Your task to perform on an android device: Set the phone to "Do not disturb". Image 0: 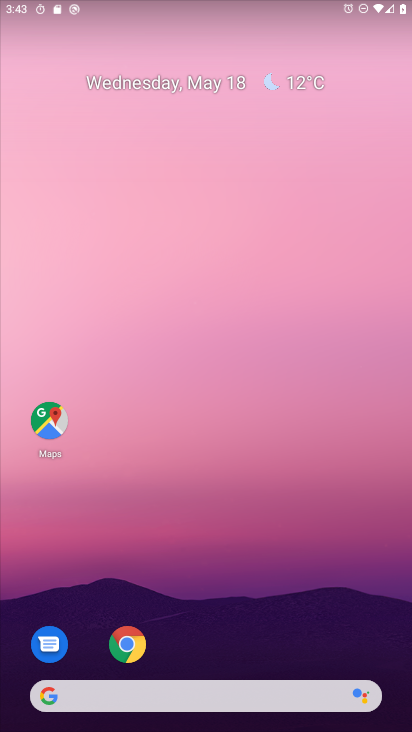
Step 0: drag from (385, 676) to (332, 266)
Your task to perform on an android device: Set the phone to "Do not disturb". Image 1: 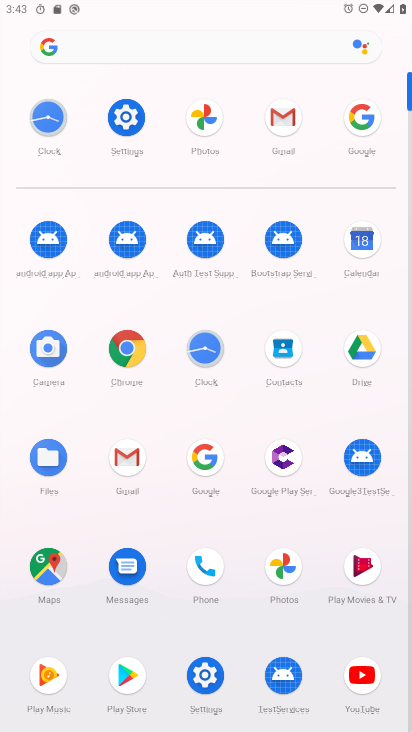
Step 1: click (113, 116)
Your task to perform on an android device: Set the phone to "Do not disturb". Image 2: 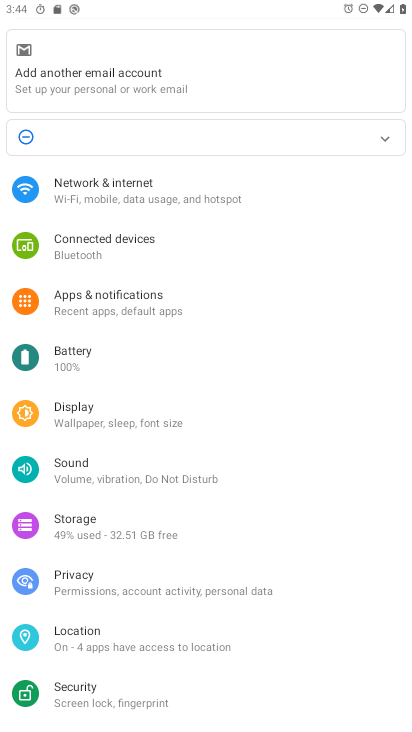
Step 2: click (81, 473)
Your task to perform on an android device: Set the phone to "Do not disturb". Image 3: 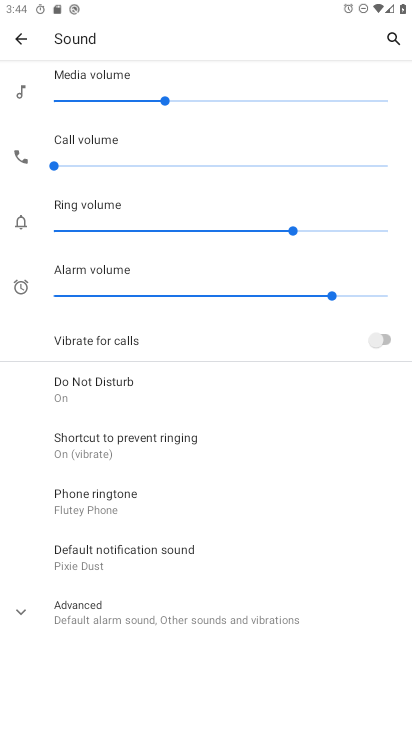
Step 3: click (70, 398)
Your task to perform on an android device: Set the phone to "Do not disturb". Image 4: 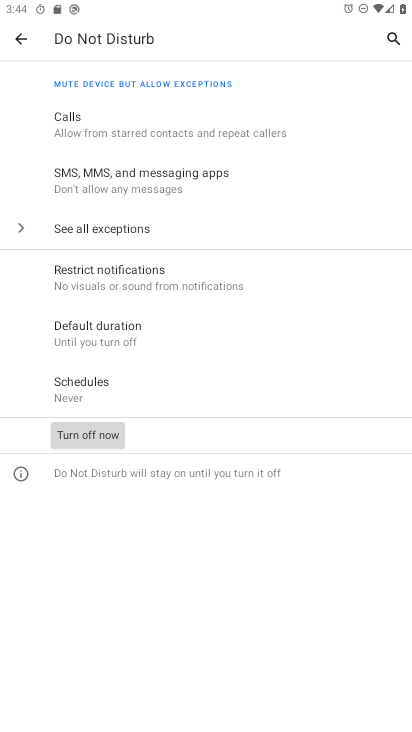
Step 4: task complete